Your task to perform on an android device: What's the weather today? Image 0: 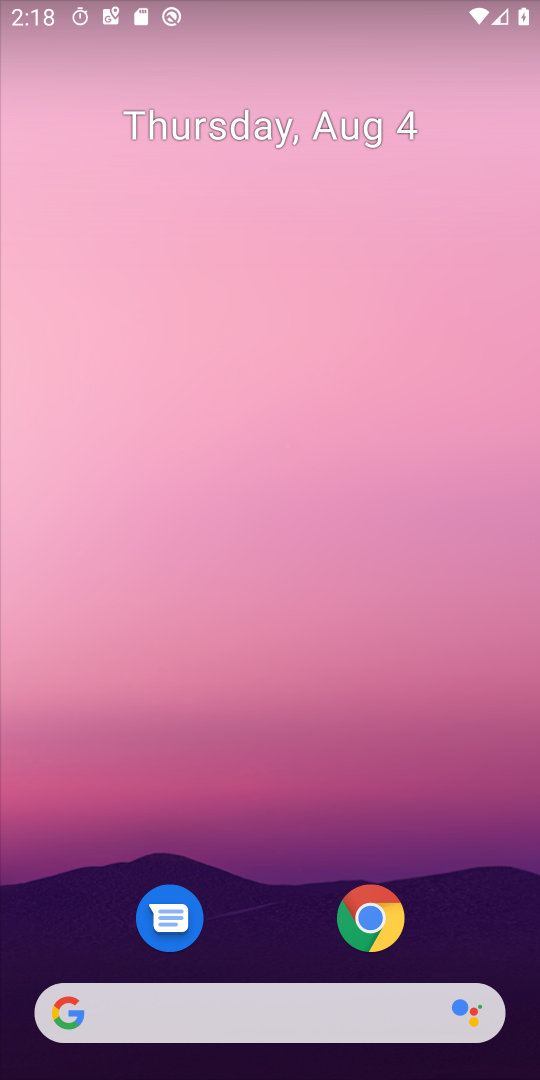
Step 0: drag from (290, 938) to (311, 364)
Your task to perform on an android device: What's the weather today? Image 1: 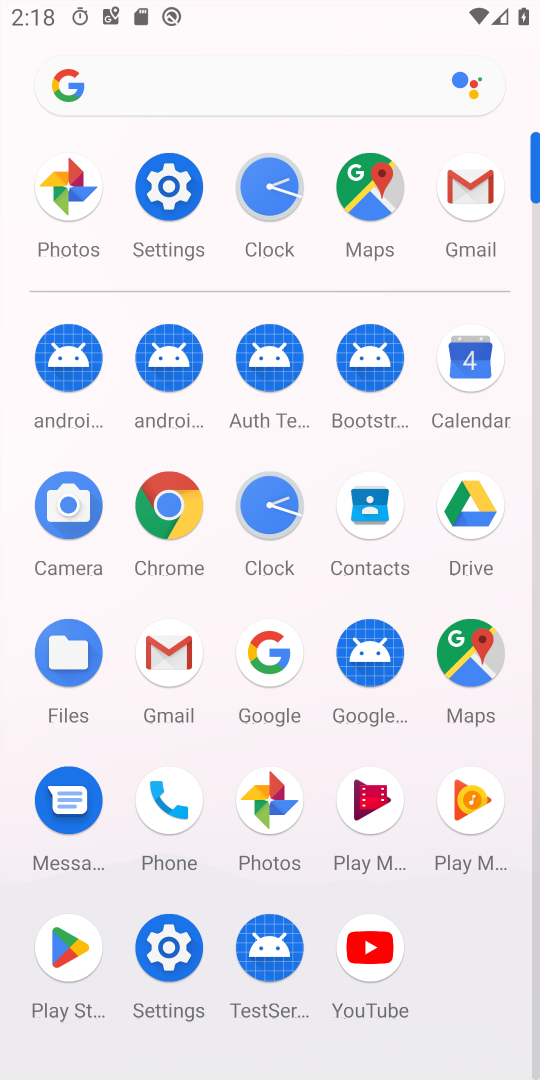
Step 1: click (274, 657)
Your task to perform on an android device: What's the weather today? Image 2: 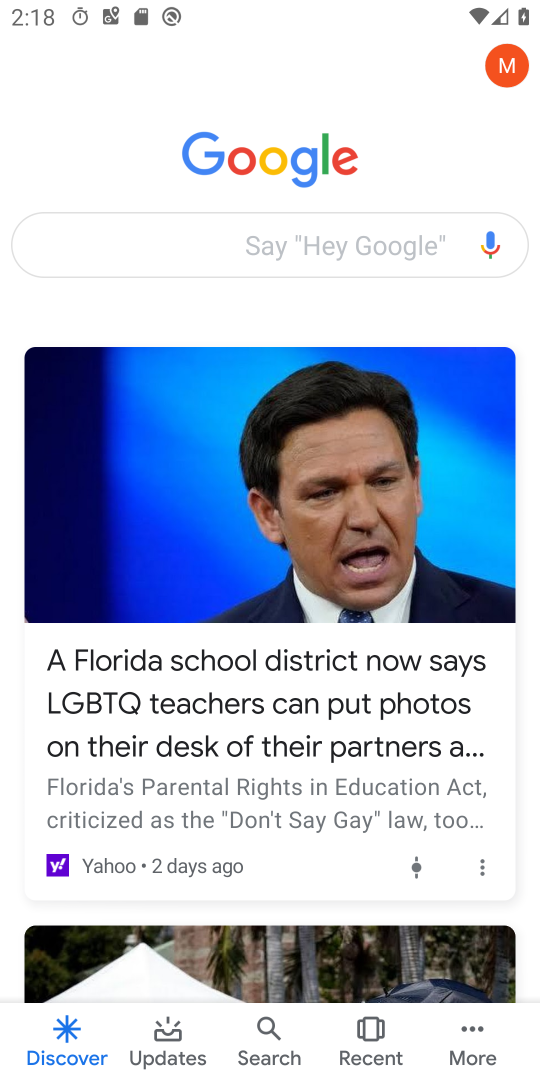
Step 2: click (228, 257)
Your task to perform on an android device: What's the weather today? Image 3: 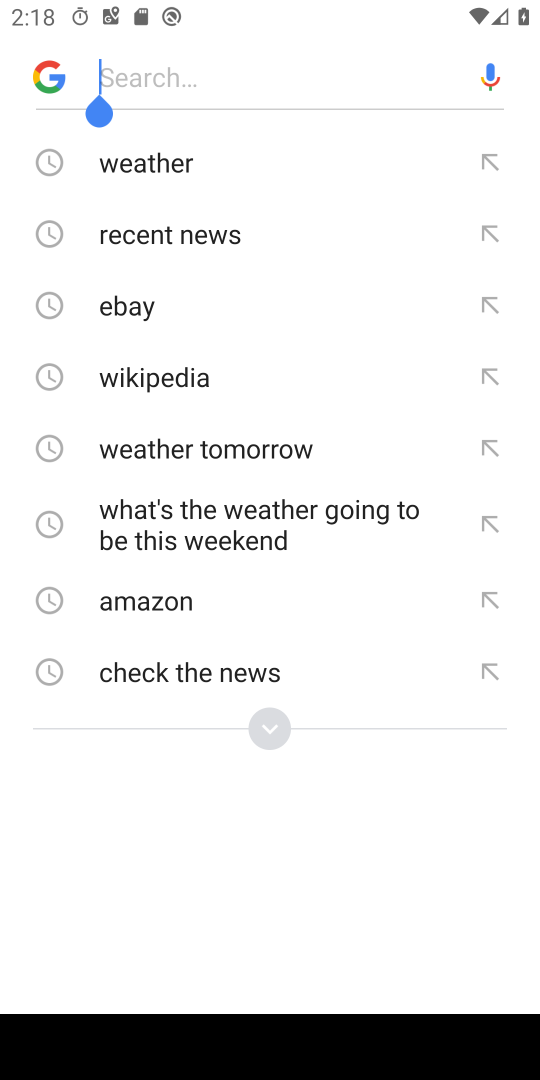
Step 3: click (205, 174)
Your task to perform on an android device: What's the weather today? Image 4: 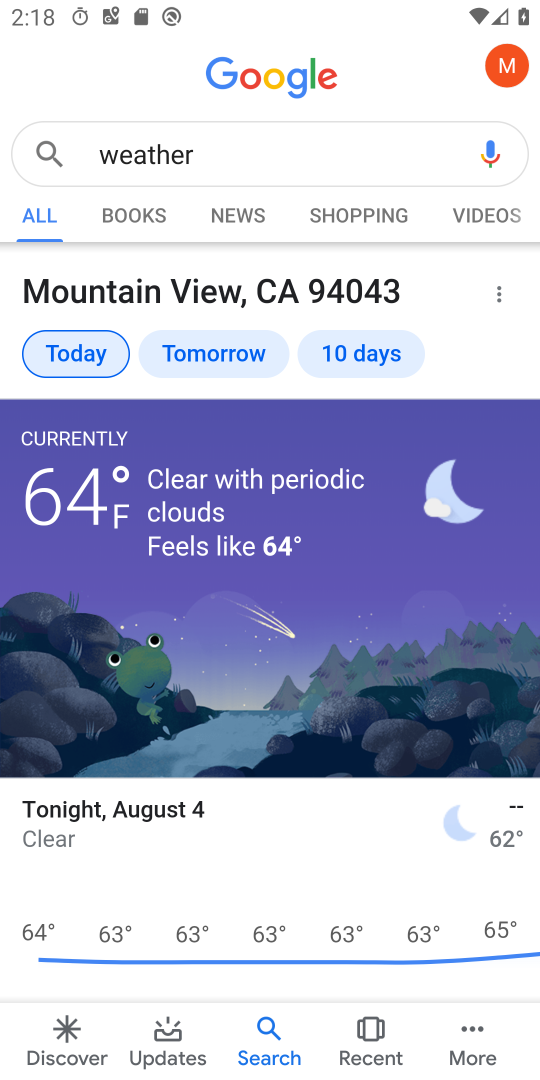
Step 4: task complete